Your task to perform on an android device: turn on improve location accuracy Image 0: 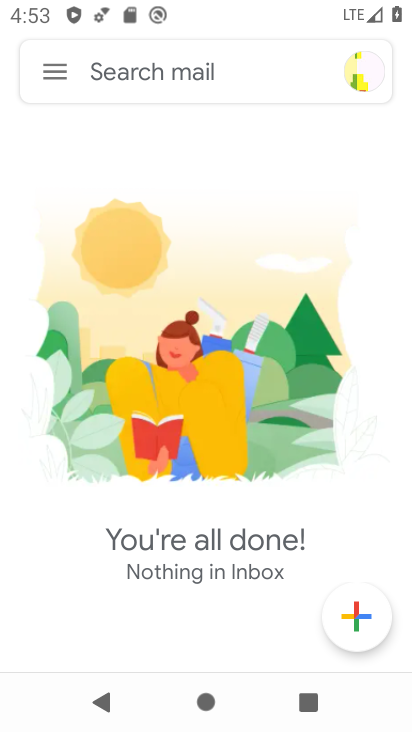
Step 0: press home button
Your task to perform on an android device: turn on improve location accuracy Image 1: 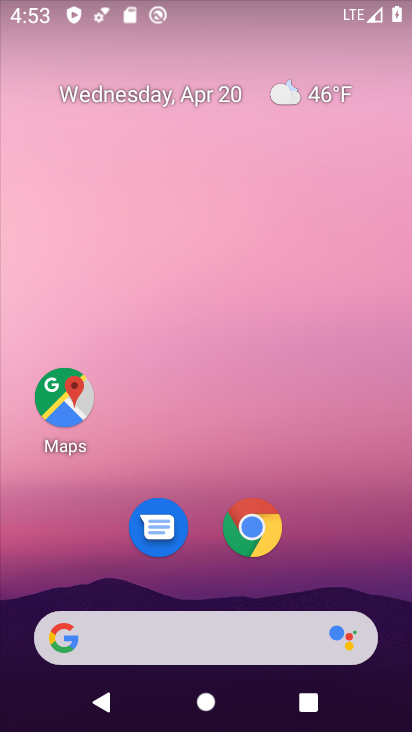
Step 1: drag from (195, 575) to (227, 170)
Your task to perform on an android device: turn on improve location accuracy Image 2: 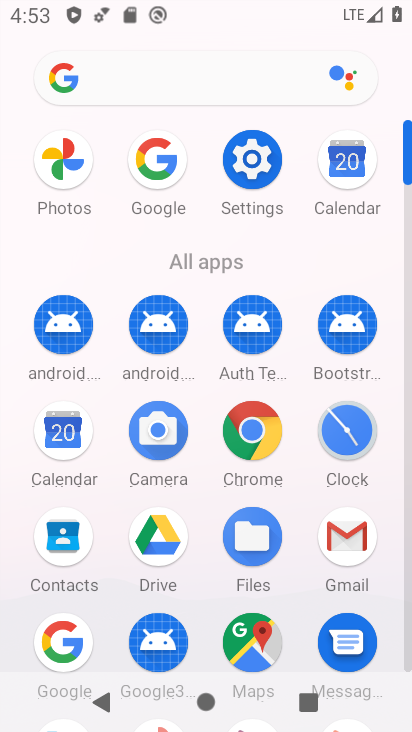
Step 2: click (255, 173)
Your task to perform on an android device: turn on improve location accuracy Image 3: 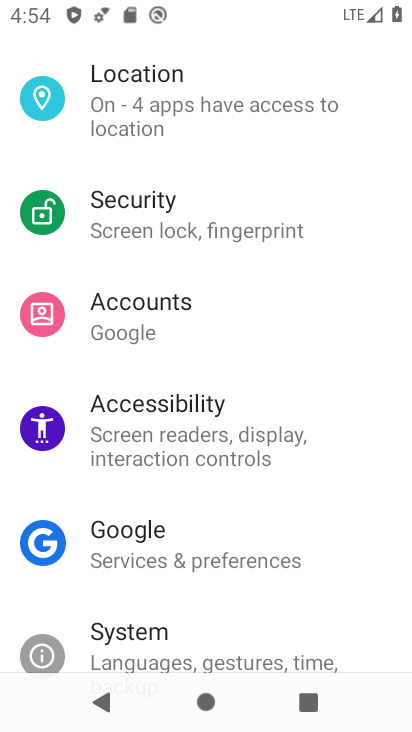
Step 3: click (227, 108)
Your task to perform on an android device: turn on improve location accuracy Image 4: 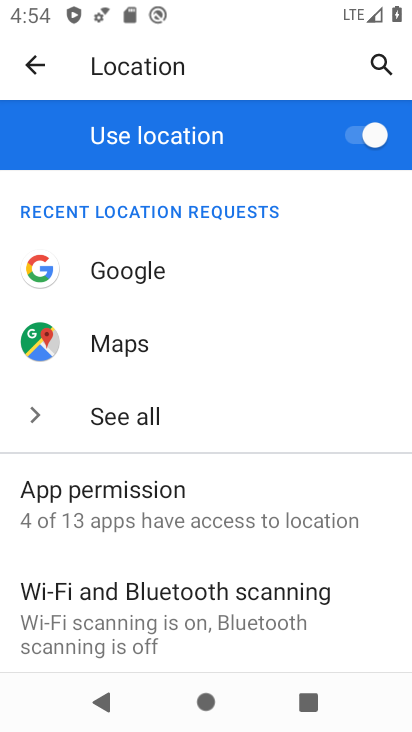
Step 4: drag from (229, 616) to (204, 285)
Your task to perform on an android device: turn on improve location accuracy Image 5: 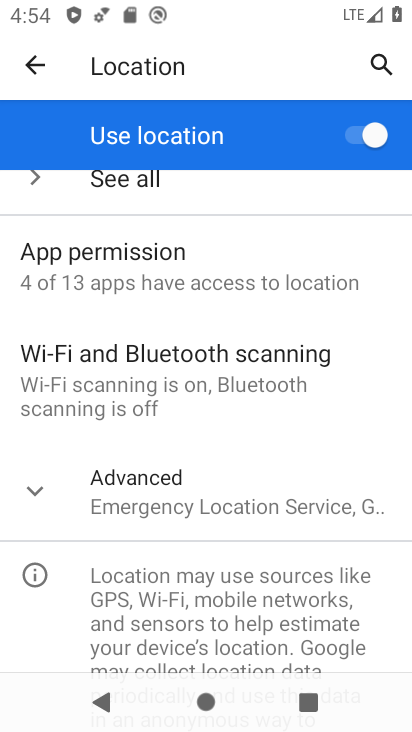
Step 5: click (186, 492)
Your task to perform on an android device: turn on improve location accuracy Image 6: 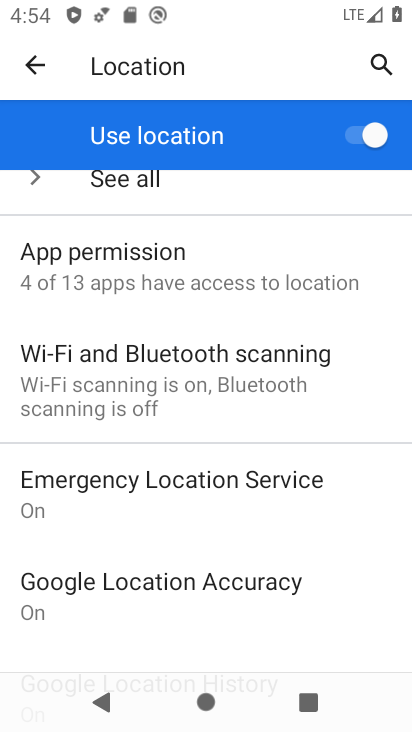
Step 6: click (237, 580)
Your task to perform on an android device: turn on improve location accuracy Image 7: 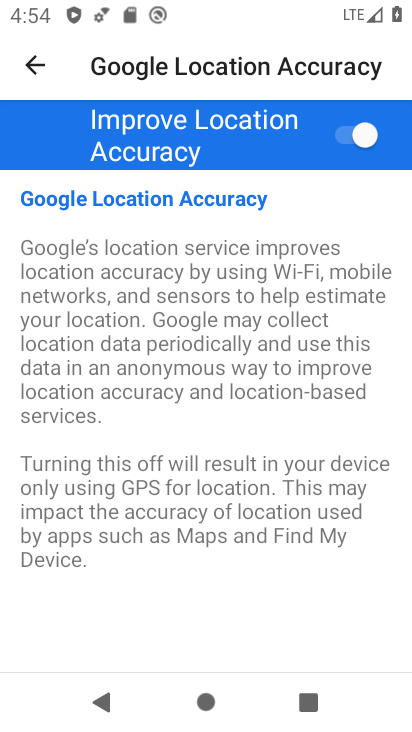
Step 7: task complete